Your task to perform on an android device: Open calendar and show me the fourth week of next month Image 0: 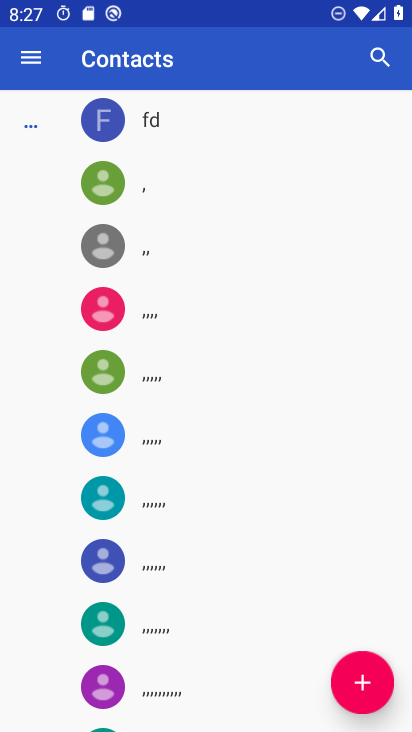
Step 0: press home button
Your task to perform on an android device: Open calendar and show me the fourth week of next month Image 1: 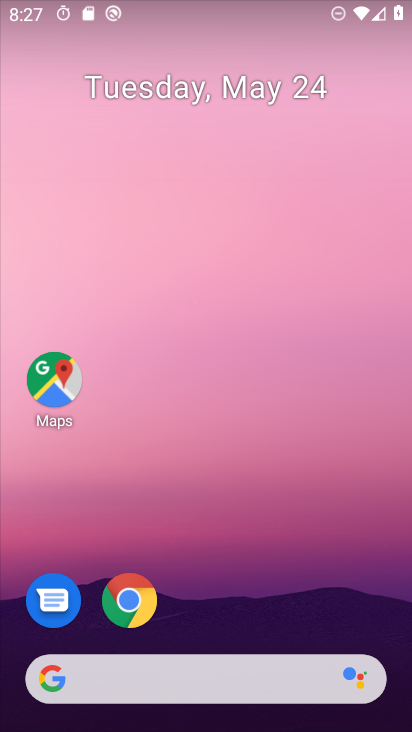
Step 1: drag from (194, 582) to (259, 17)
Your task to perform on an android device: Open calendar and show me the fourth week of next month Image 2: 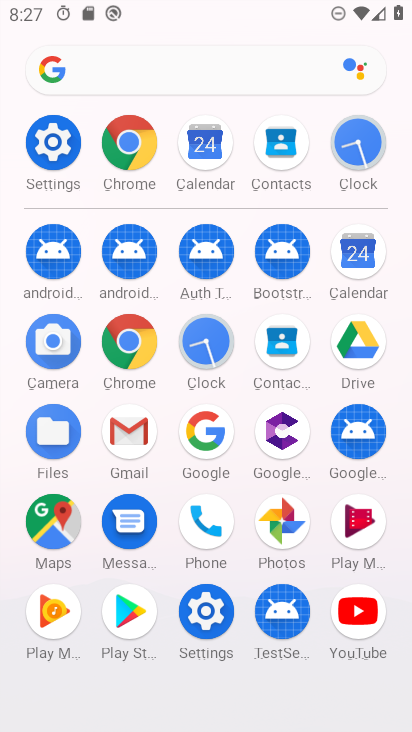
Step 2: click (362, 251)
Your task to perform on an android device: Open calendar and show me the fourth week of next month Image 3: 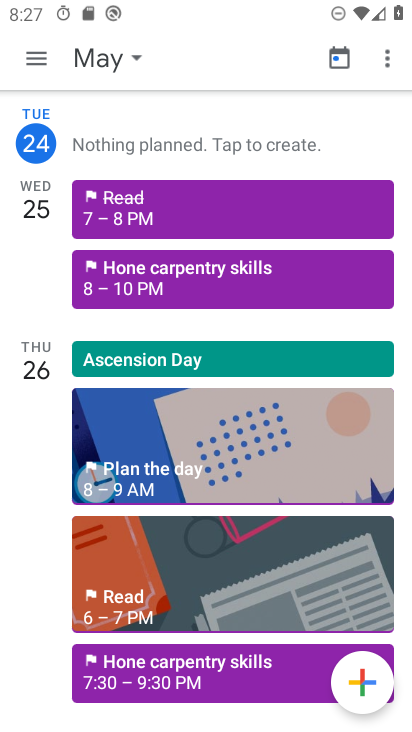
Step 3: click (115, 58)
Your task to perform on an android device: Open calendar and show me the fourth week of next month Image 4: 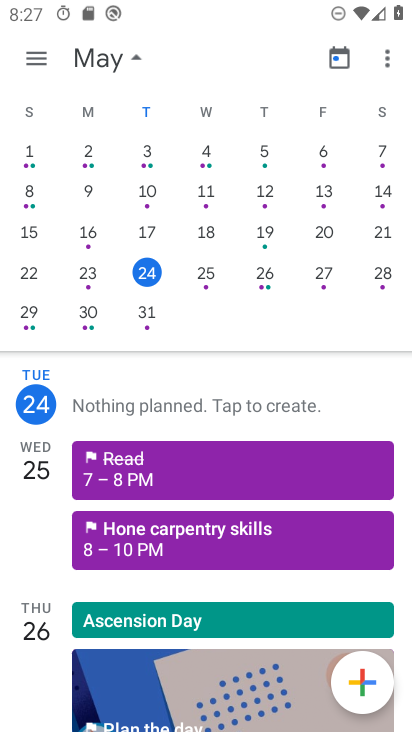
Step 4: drag from (368, 199) to (133, 190)
Your task to perform on an android device: Open calendar and show me the fourth week of next month Image 5: 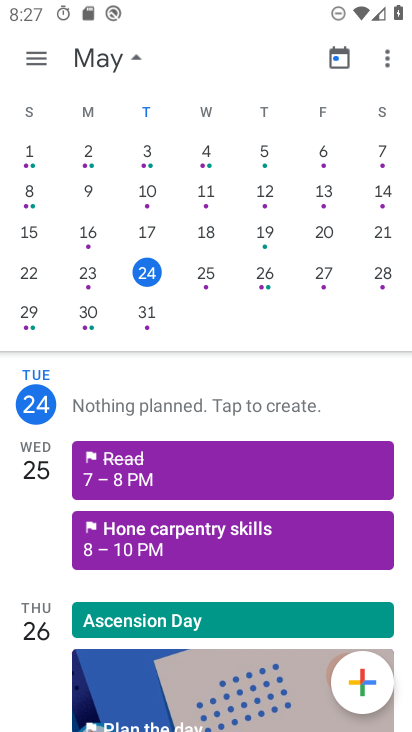
Step 5: drag from (388, 206) to (15, 203)
Your task to perform on an android device: Open calendar and show me the fourth week of next month Image 6: 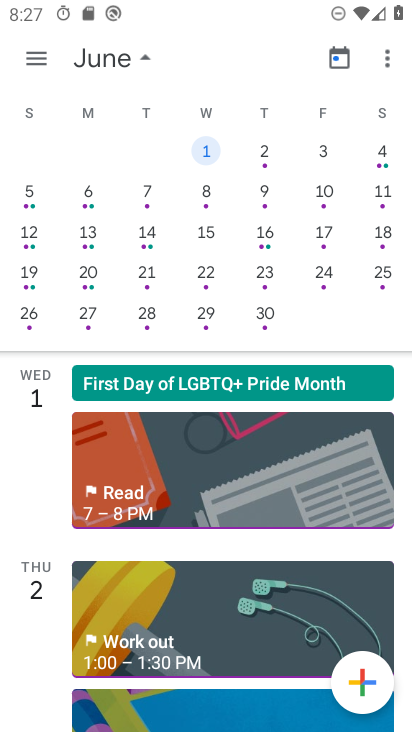
Step 6: click (88, 262)
Your task to perform on an android device: Open calendar and show me the fourth week of next month Image 7: 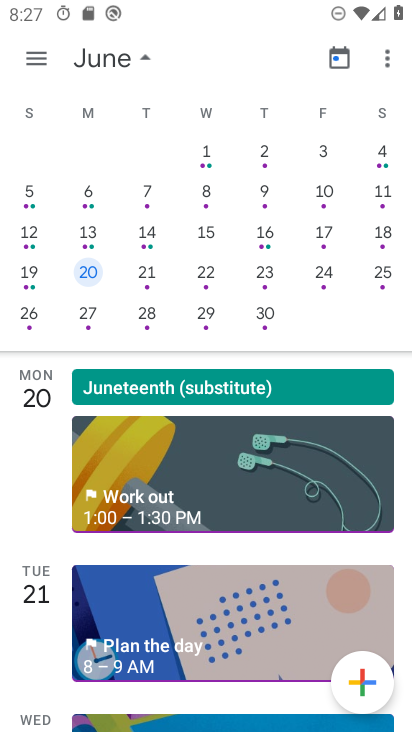
Step 7: task complete